Your task to perform on an android device: turn off picture-in-picture Image 0: 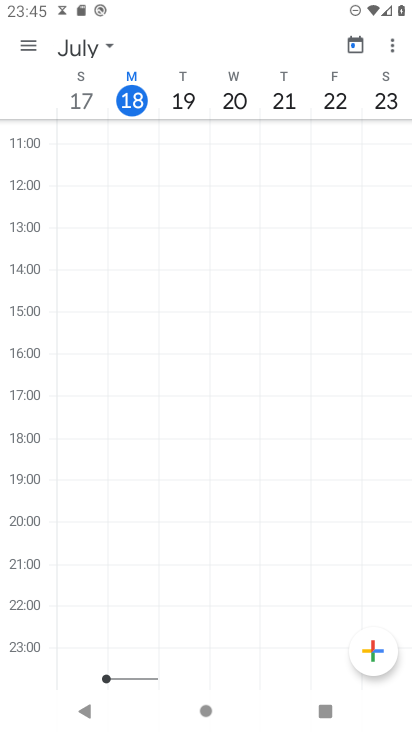
Step 0: press home button
Your task to perform on an android device: turn off picture-in-picture Image 1: 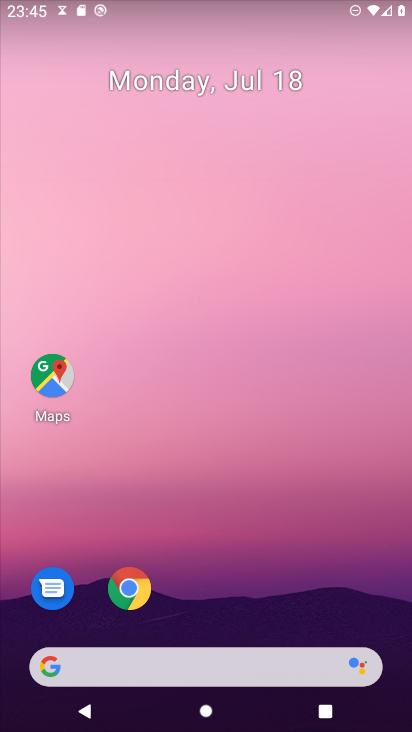
Step 1: click (128, 588)
Your task to perform on an android device: turn off picture-in-picture Image 2: 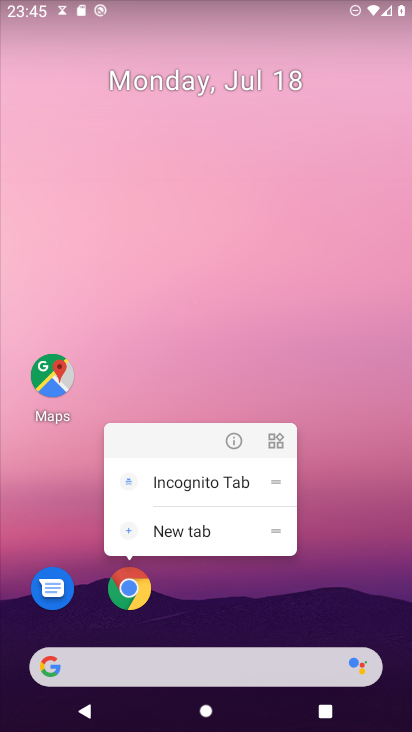
Step 2: click (230, 438)
Your task to perform on an android device: turn off picture-in-picture Image 3: 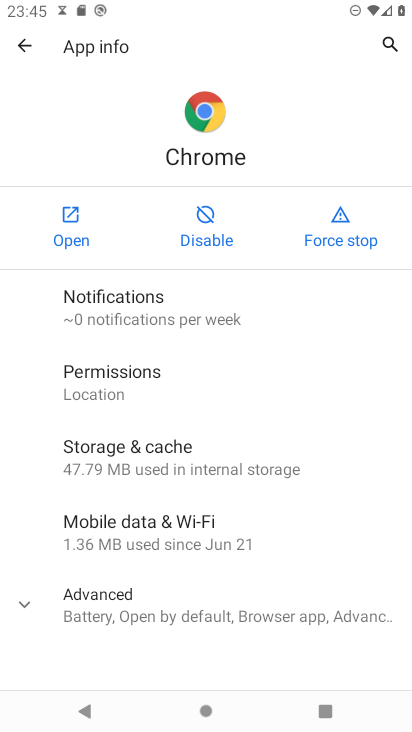
Step 3: drag from (36, 566) to (103, 261)
Your task to perform on an android device: turn off picture-in-picture Image 4: 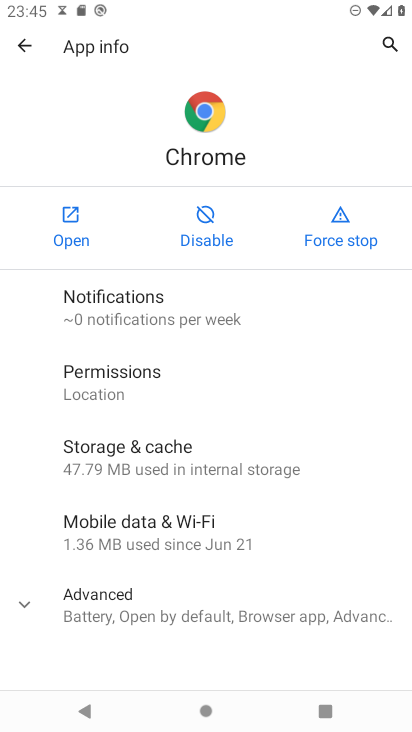
Step 4: click (22, 604)
Your task to perform on an android device: turn off picture-in-picture Image 5: 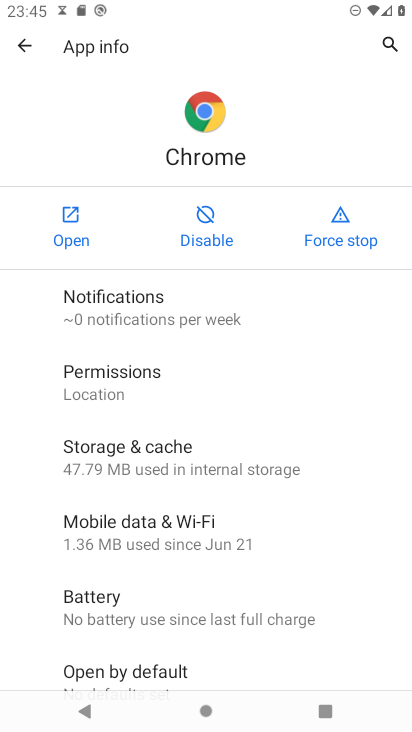
Step 5: drag from (295, 658) to (306, 104)
Your task to perform on an android device: turn off picture-in-picture Image 6: 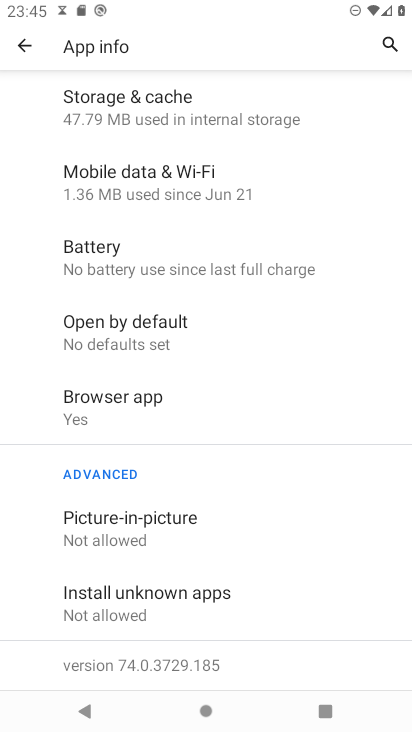
Step 6: click (133, 521)
Your task to perform on an android device: turn off picture-in-picture Image 7: 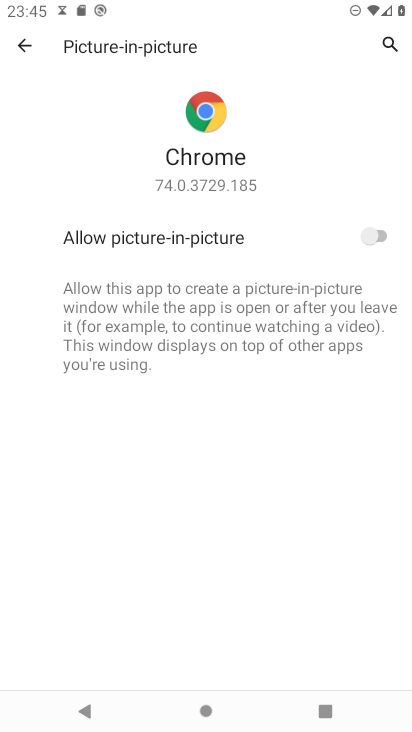
Step 7: task complete